Your task to perform on an android device: open a new tab in the chrome app Image 0: 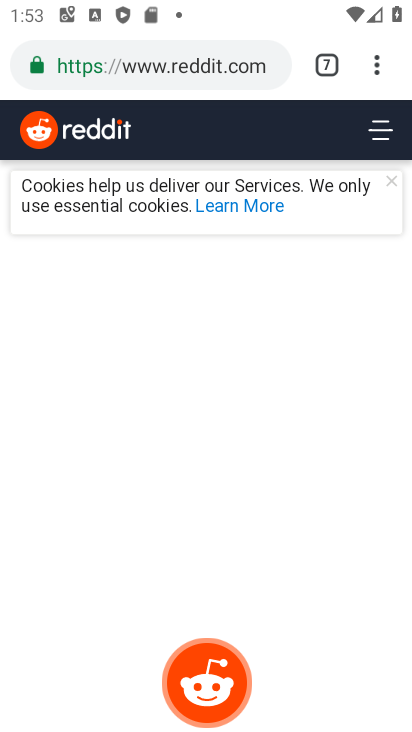
Step 0: click (377, 67)
Your task to perform on an android device: open a new tab in the chrome app Image 1: 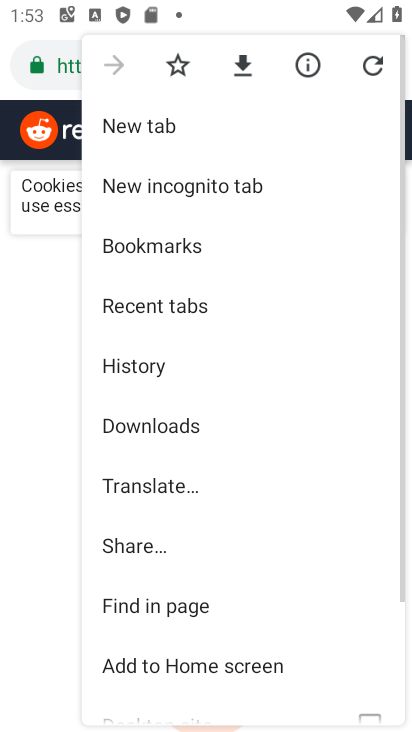
Step 1: click (294, 114)
Your task to perform on an android device: open a new tab in the chrome app Image 2: 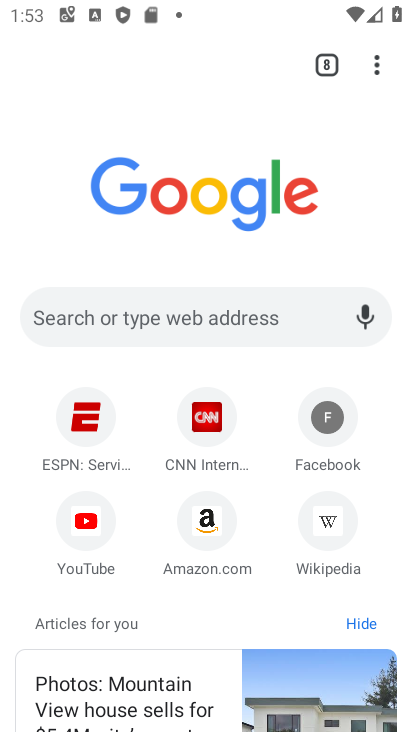
Step 2: task complete